Your task to perform on an android device: turn off wifi Image 0: 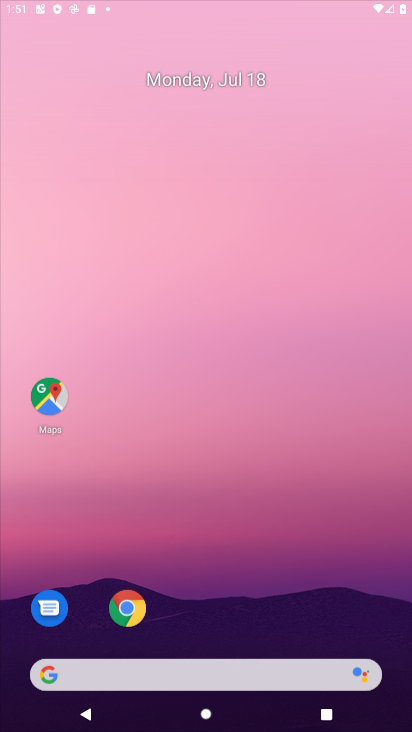
Step 0: click (219, 89)
Your task to perform on an android device: turn off wifi Image 1: 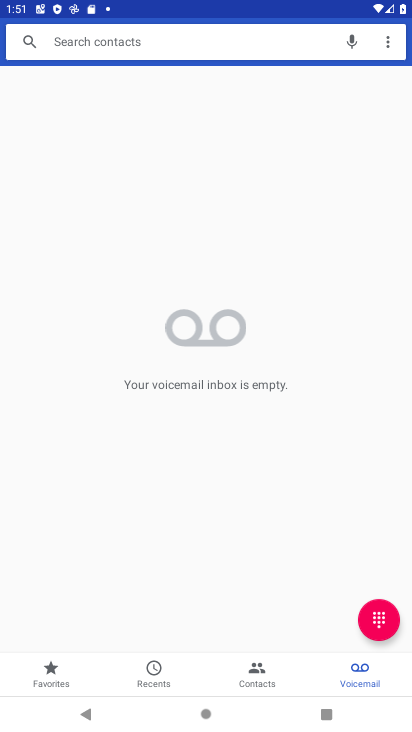
Step 1: press home button
Your task to perform on an android device: turn off wifi Image 2: 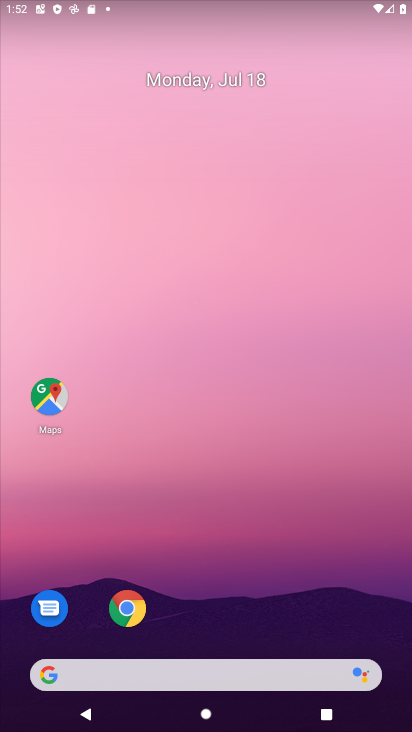
Step 2: drag from (176, 8) to (221, 598)
Your task to perform on an android device: turn off wifi Image 3: 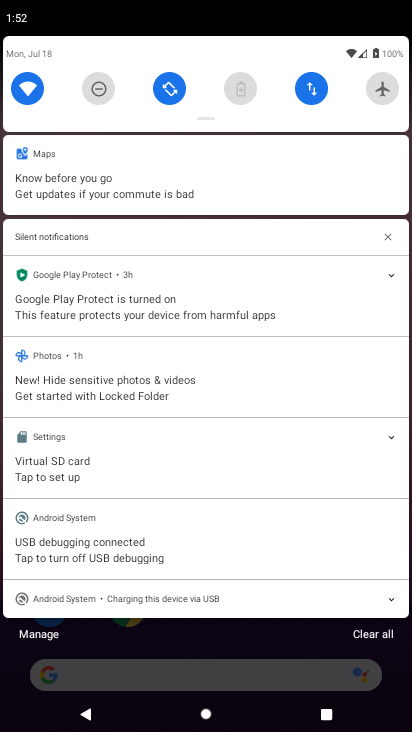
Step 3: click (20, 93)
Your task to perform on an android device: turn off wifi Image 4: 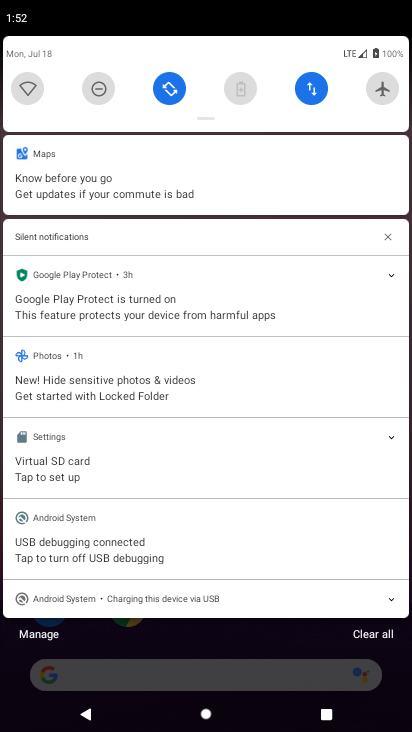
Step 4: task complete